Your task to perform on an android device: open chrome and create a bookmark for the current page Image 0: 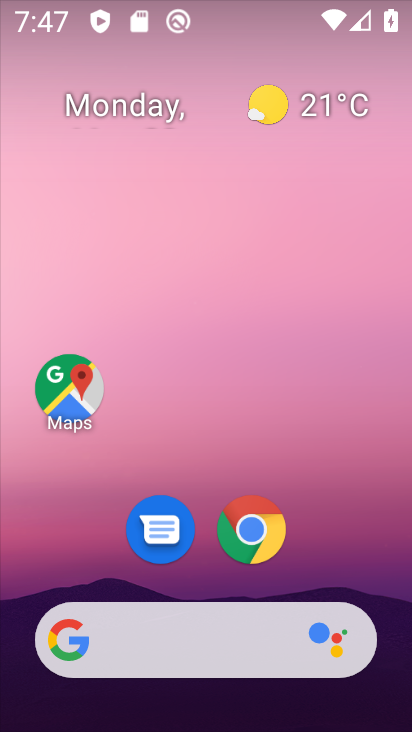
Step 0: click (249, 530)
Your task to perform on an android device: open chrome and create a bookmark for the current page Image 1: 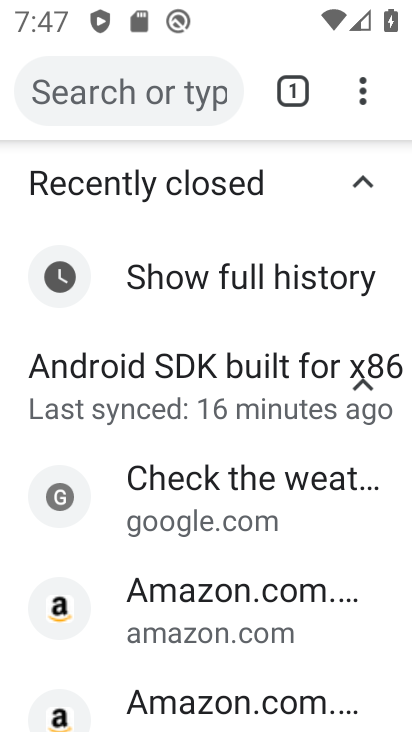
Step 1: click (349, 96)
Your task to perform on an android device: open chrome and create a bookmark for the current page Image 2: 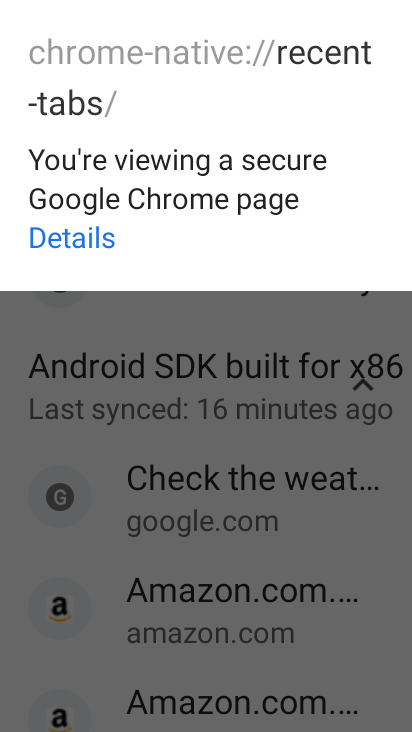
Step 2: click (263, 388)
Your task to perform on an android device: open chrome and create a bookmark for the current page Image 3: 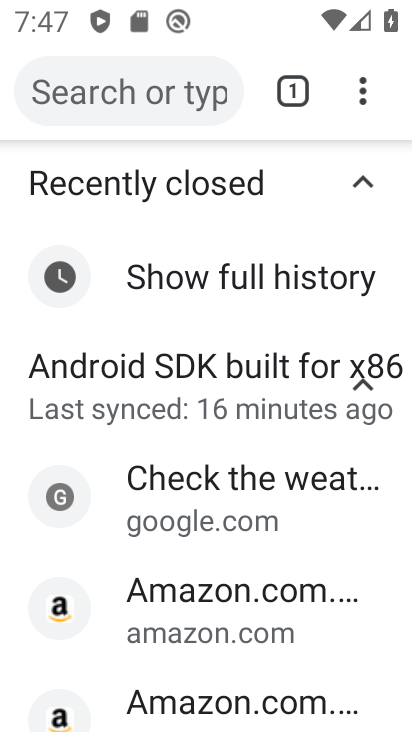
Step 3: click (390, 117)
Your task to perform on an android device: open chrome and create a bookmark for the current page Image 4: 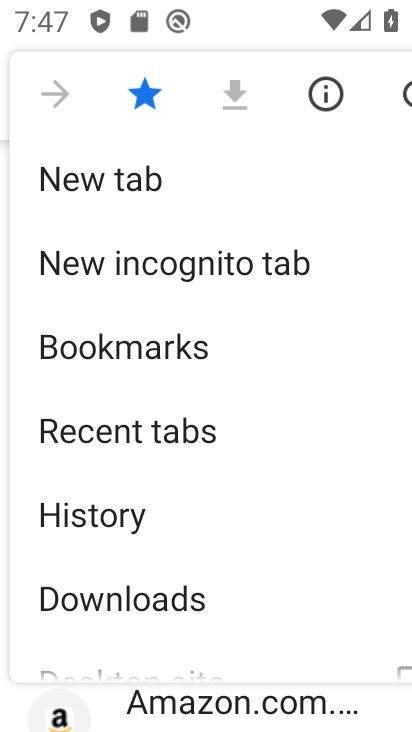
Step 4: task complete